Your task to perform on an android device: Go to Wikipedia Image 0: 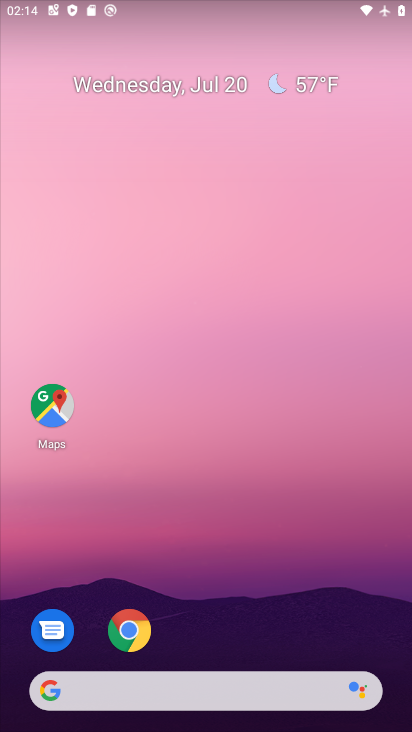
Step 0: drag from (275, 575) to (180, 43)
Your task to perform on an android device: Go to Wikipedia Image 1: 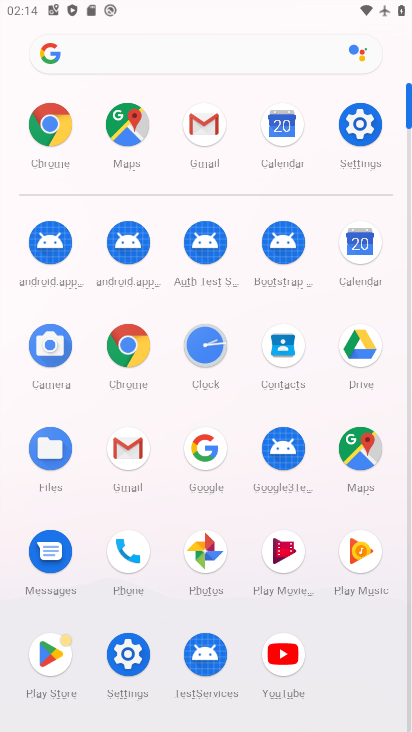
Step 1: click (44, 132)
Your task to perform on an android device: Go to Wikipedia Image 2: 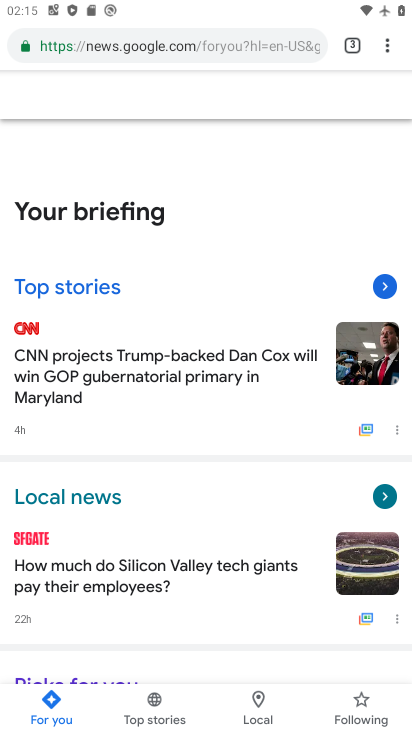
Step 2: click (202, 41)
Your task to perform on an android device: Go to Wikipedia Image 3: 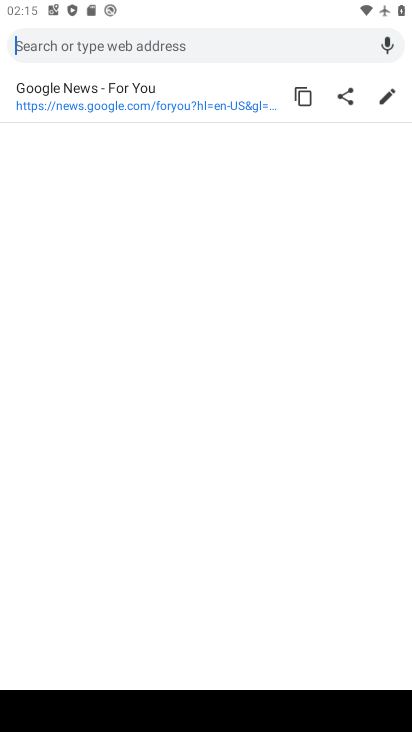
Step 3: type "wikipedia"
Your task to perform on an android device: Go to Wikipedia Image 4: 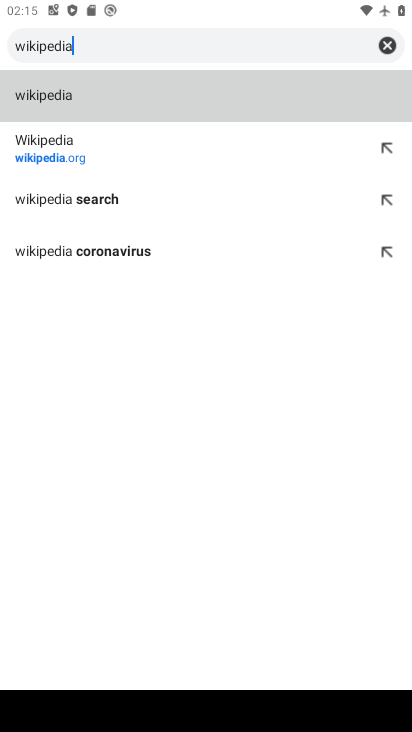
Step 4: click (38, 158)
Your task to perform on an android device: Go to Wikipedia Image 5: 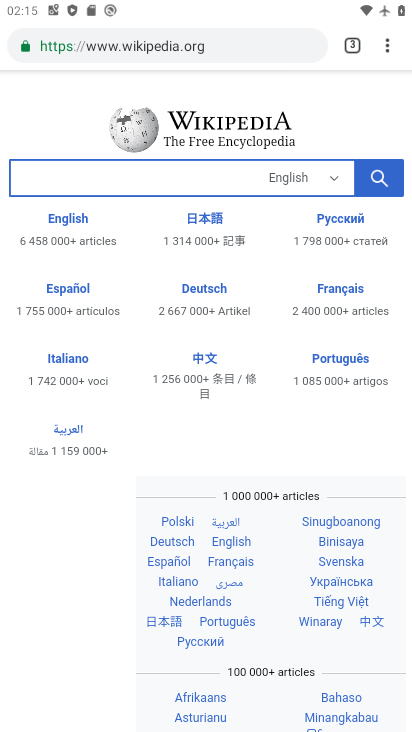
Step 5: task complete